Your task to perform on an android device: open app "Truecaller" (install if not already installed), go to login, and select forgot password Image 0: 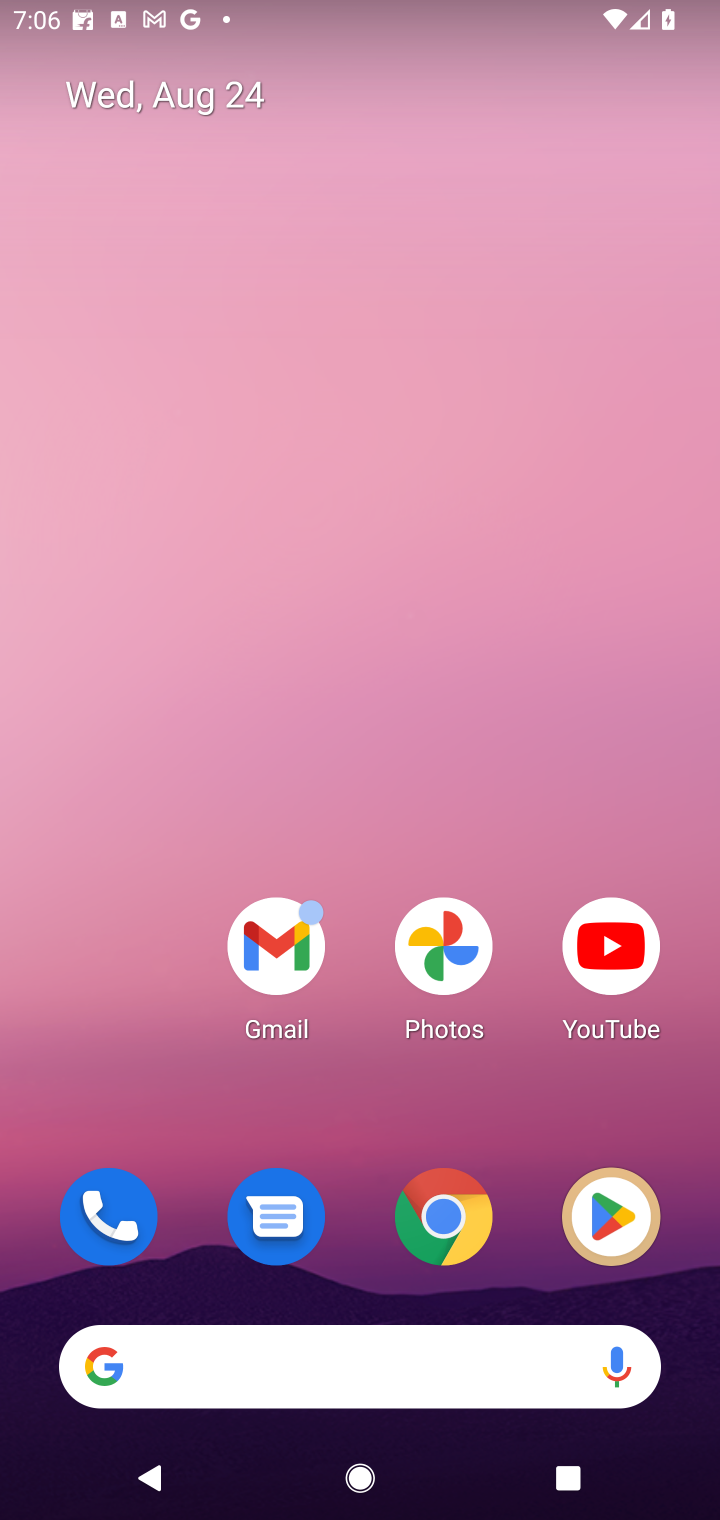
Step 0: click (588, 1160)
Your task to perform on an android device: open app "Truecaller" (install if not already installed), go to login, and select forgot password Image 1: 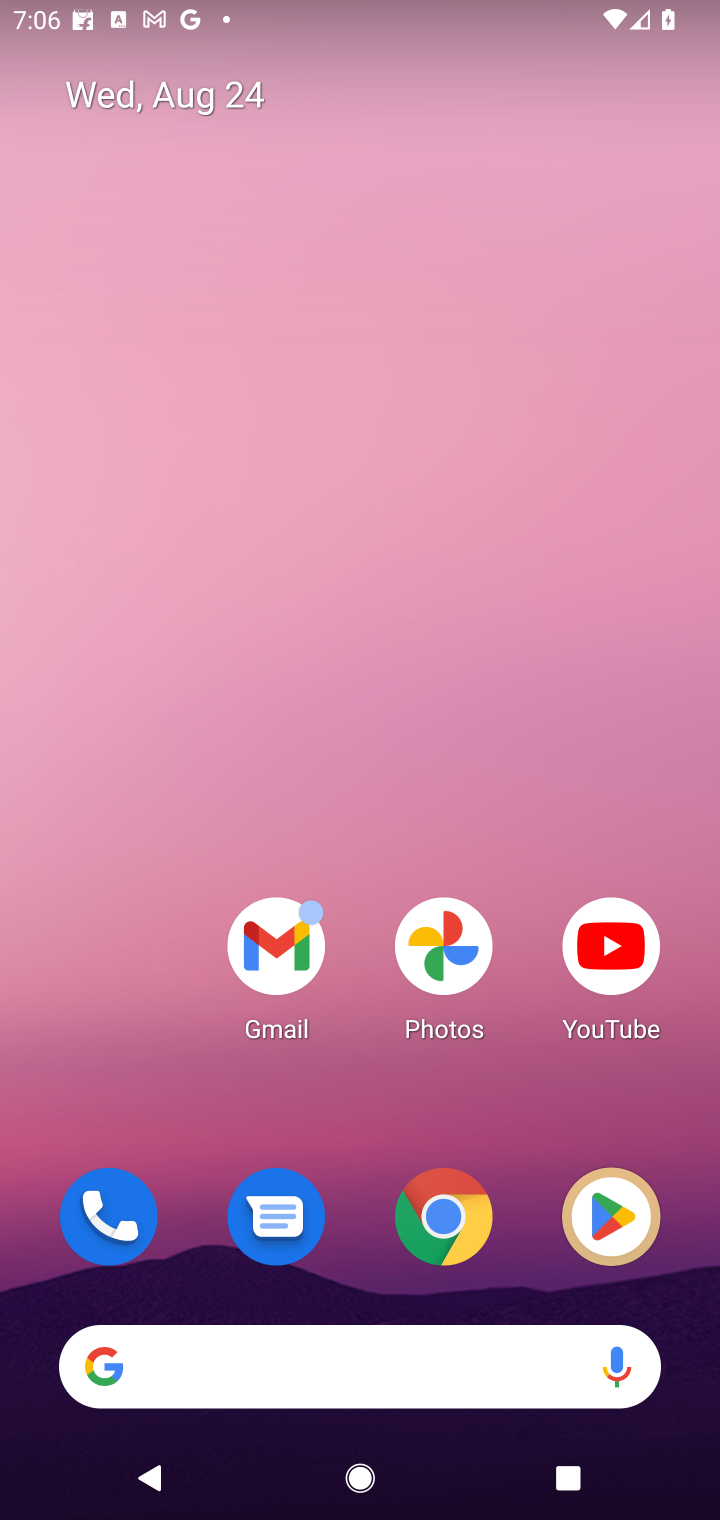
Step 1: click (621, 1231)
Your task to perform on an android device: open app "Truecaller" (install if not already installed), go to login, and select forgot password Image 2: 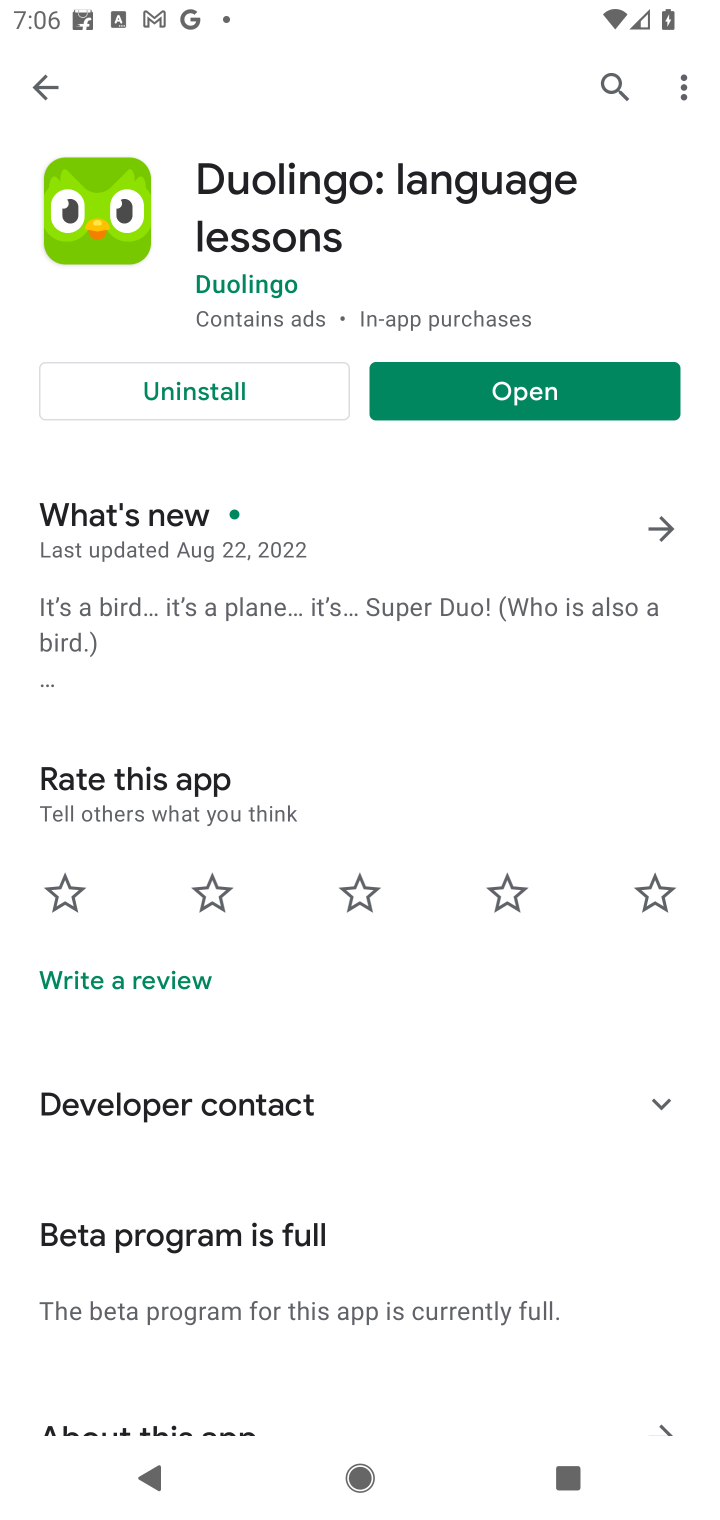
Step 2: click (614, 70)
Your task to perform on an android device: open app "Truecaller" (install if not already installed), go to login, and select forgot password Image 3: 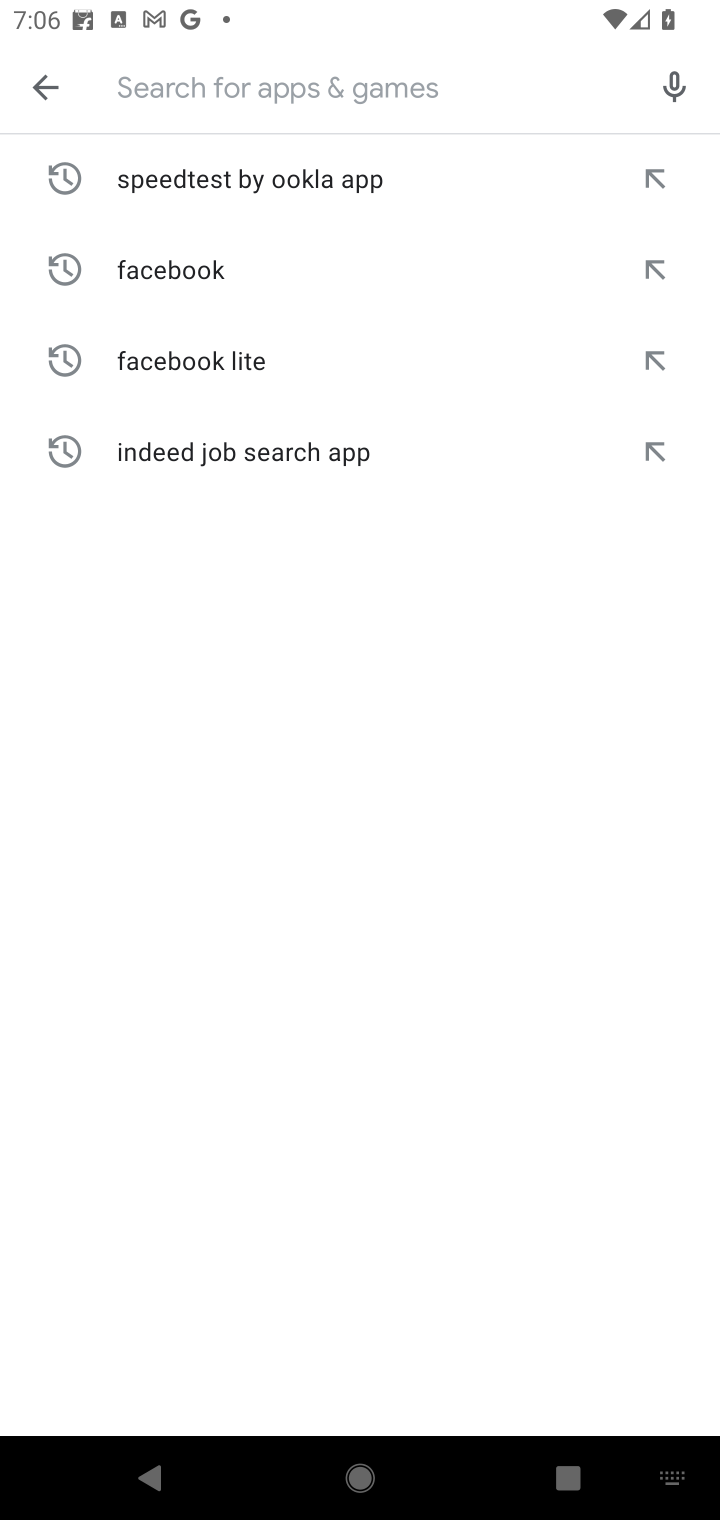
Step 3: click (362, 74)
Your task to perform on an android device: open app "Truecaller" (install if not already installed), go to login, and select forgot password Image 4: 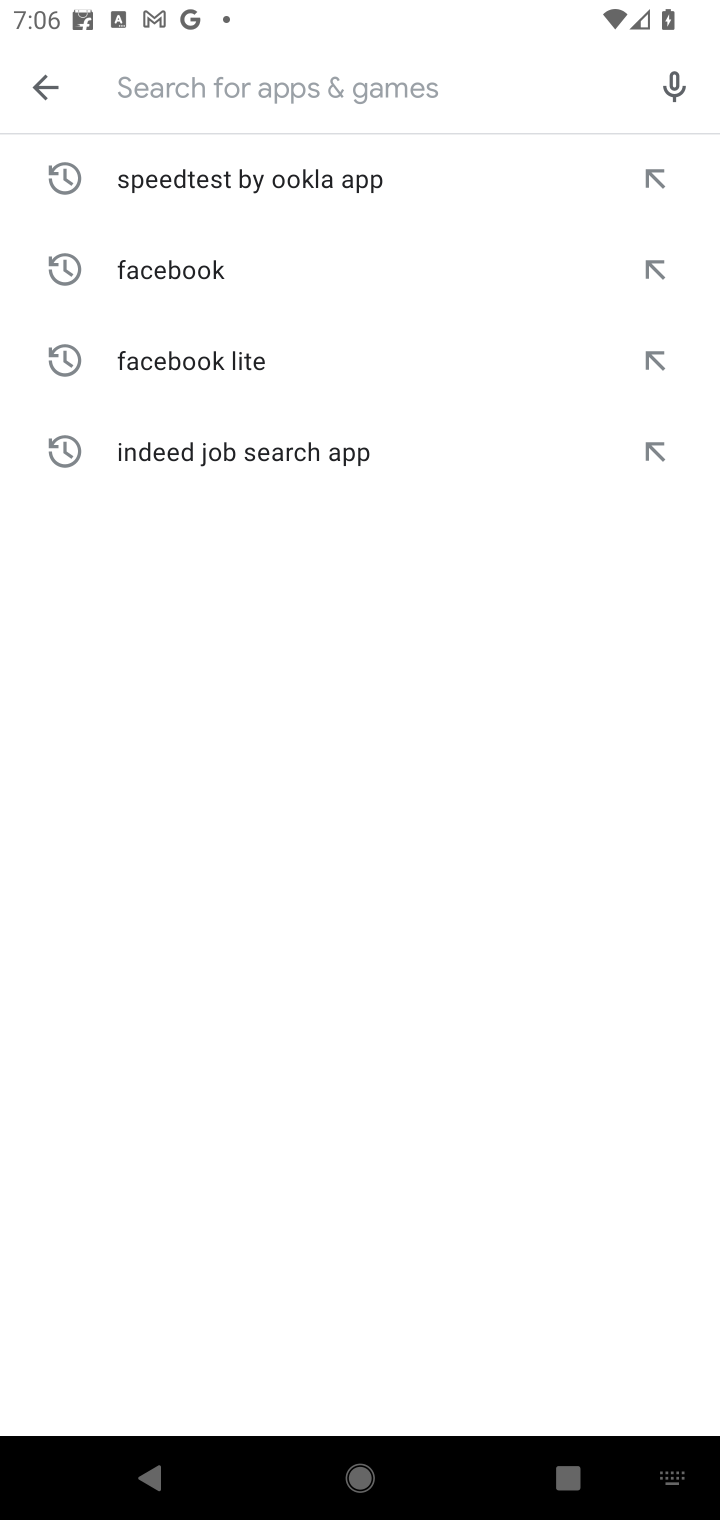
Step 4: type "Truecaller"
Your task to perform on an android device: open app "Truecaller" (install if not already installed), go to login, and select forgot password Image 5: 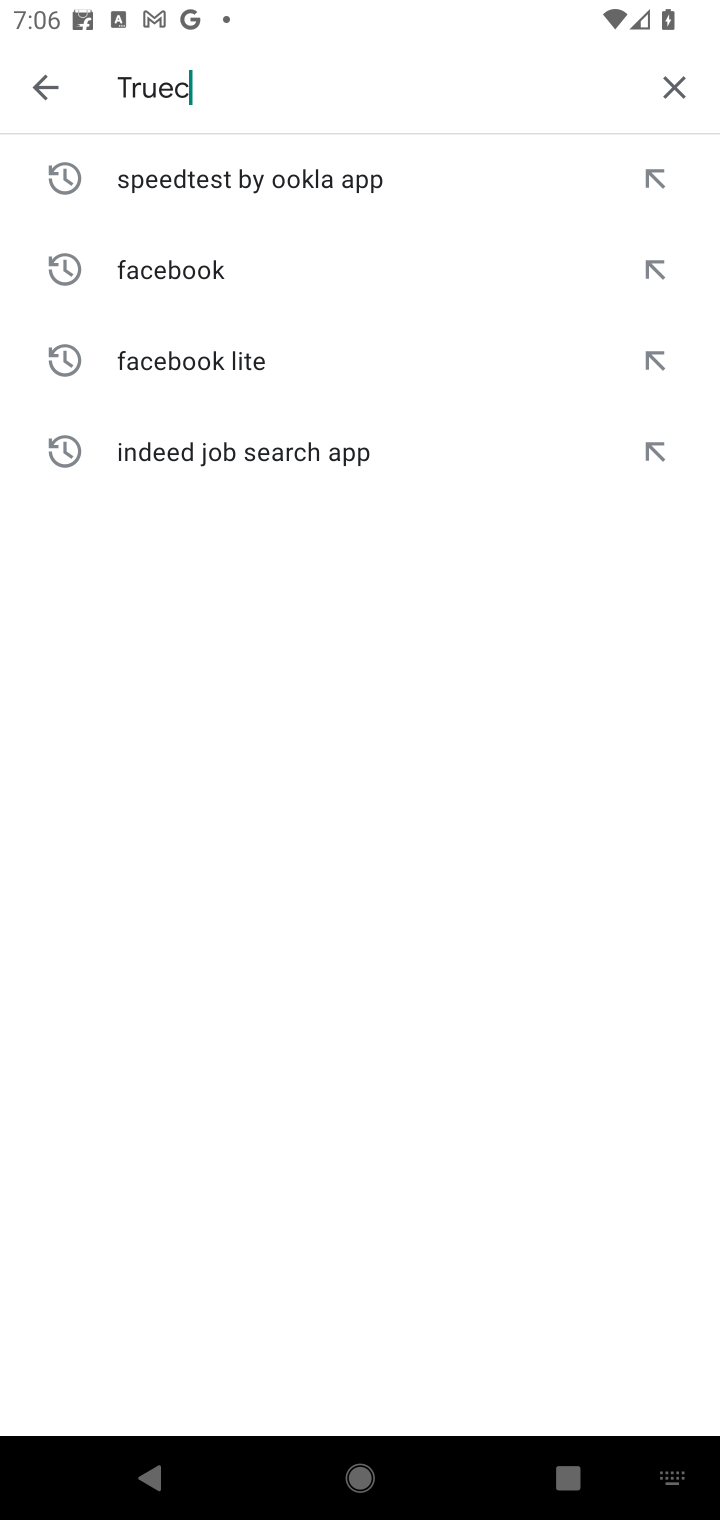
Step 5: type ""
Your task to perform on an android device: open app "Truecaller" (install if not already installed), go to login, and select forgot password Image 6: 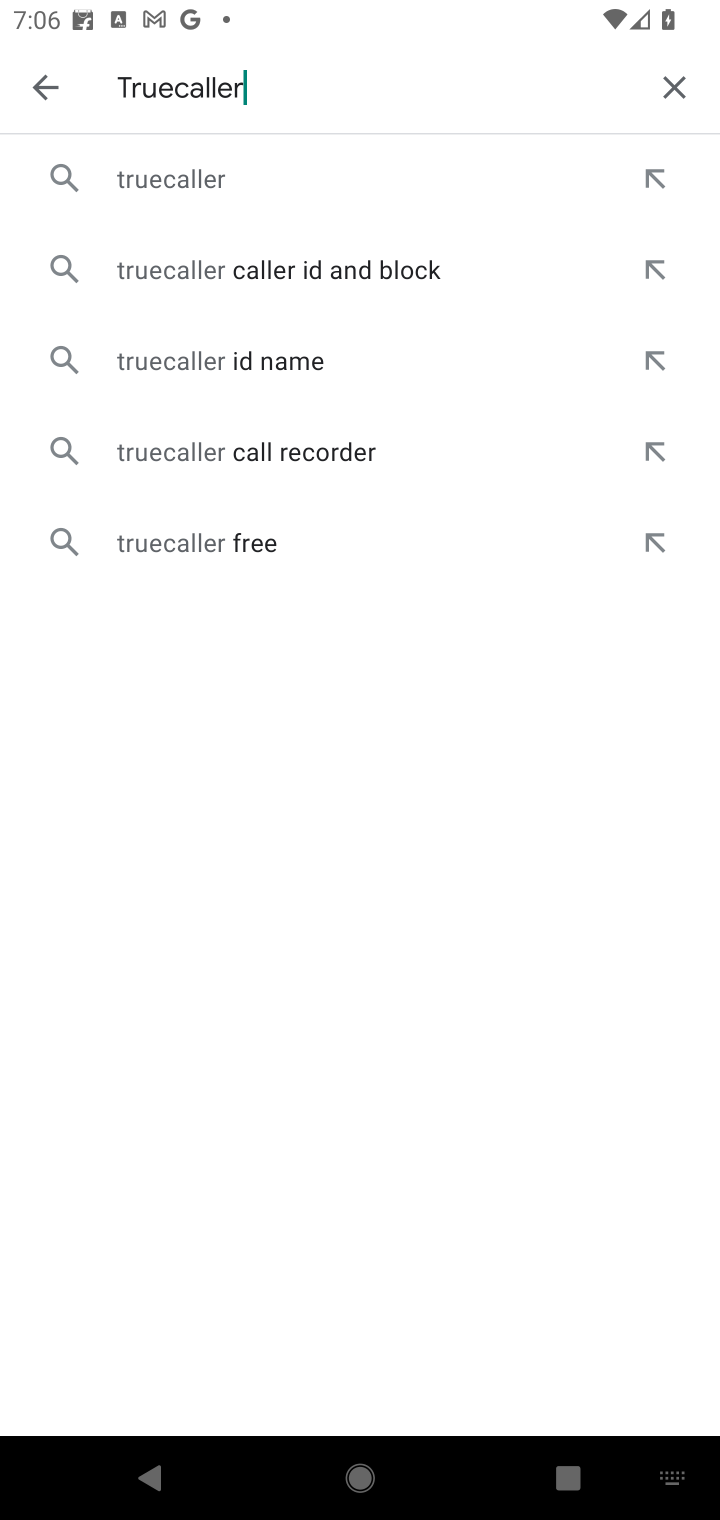
Step 6: click (303, 183)
Your task to perform on an android device: open app "Truecaller" (install if not already installed), go to login, and select forgot password Image 7: 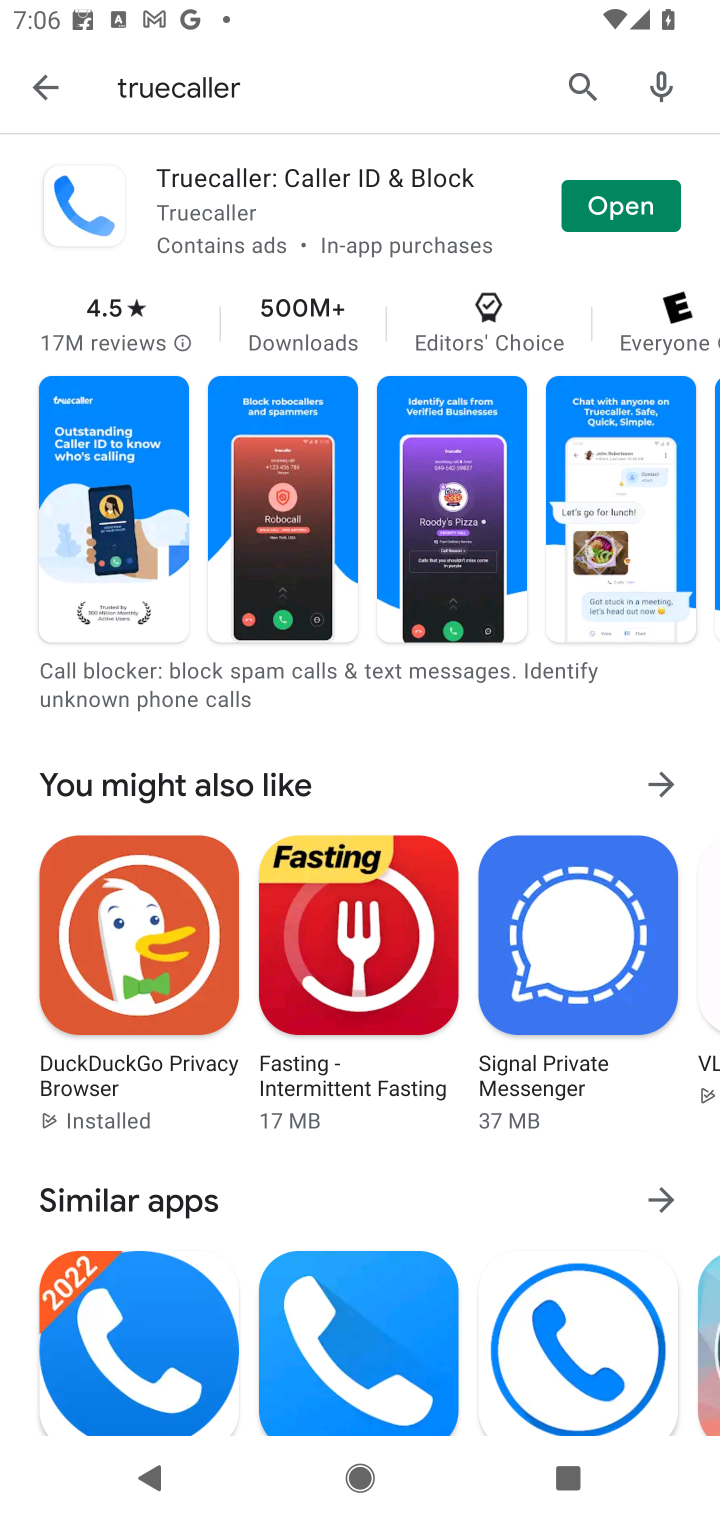
Step 7: click (615, 198)
Your task to perform on an android device: open app "Truecaller" (install if not already installed), go to login, and select forgot password Image 8: 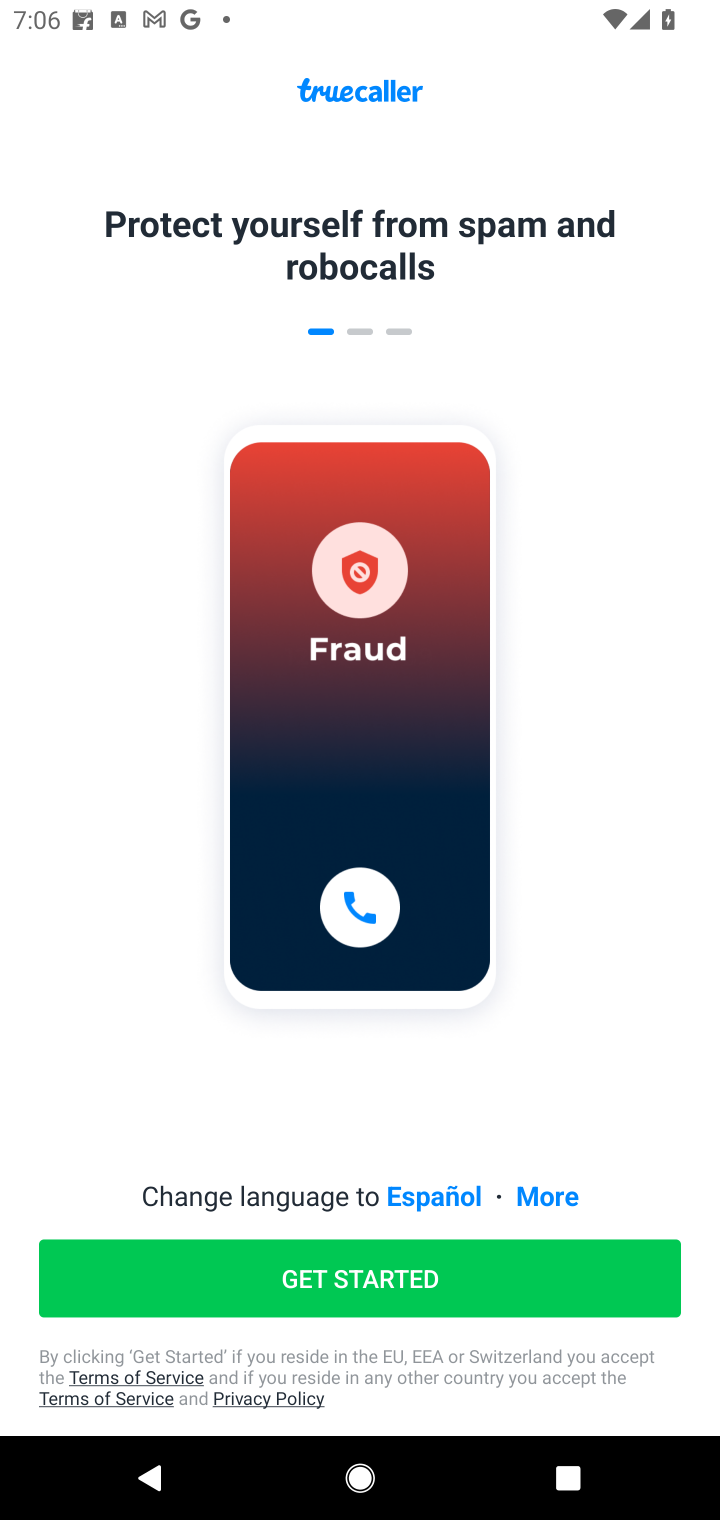
Step 8: task complete